Your task to perform on an android device: Go to display settings Image 0: 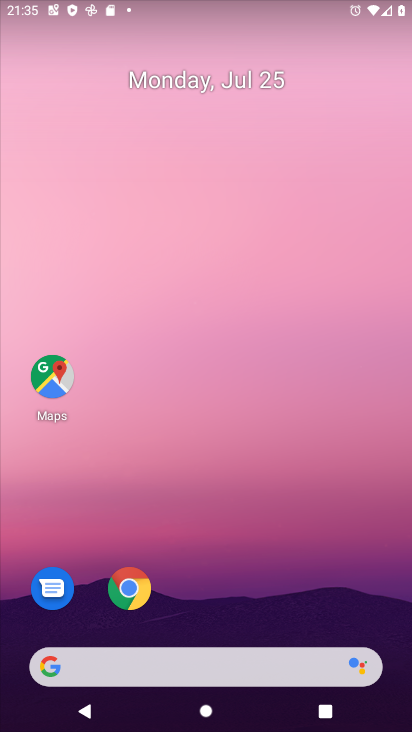
Step 0: drag from (188, 641) to (175, 204)
Your task to perform on an android device: Go to display settings Image 1: 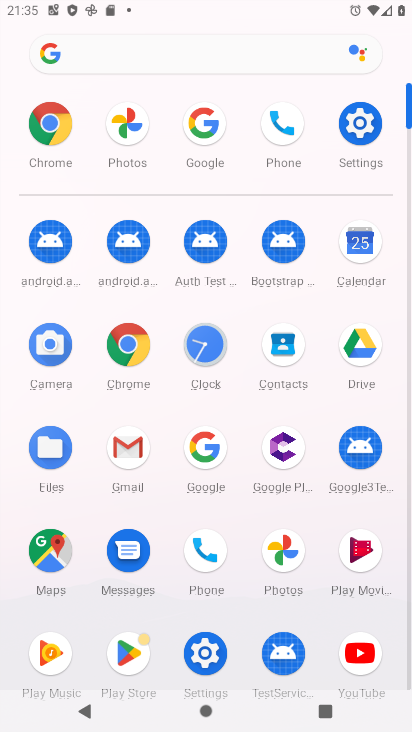
Step 1: click (358, 132)
Your task to perform on an android device: Go to display settings Image 2: 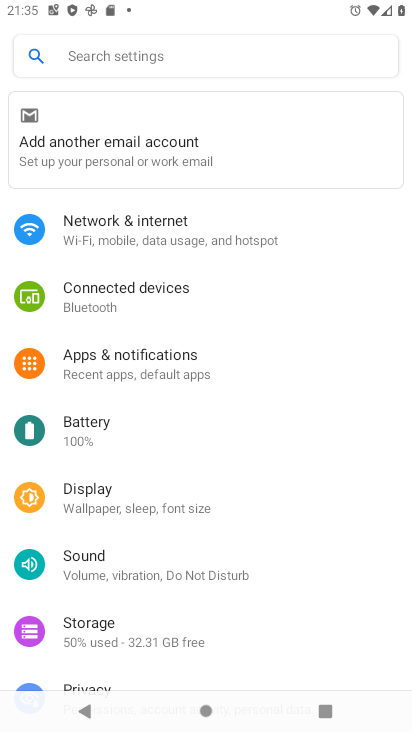
Step 2: click (115, 504)
Your task to perform on an android device: Go to display settings Image 3: 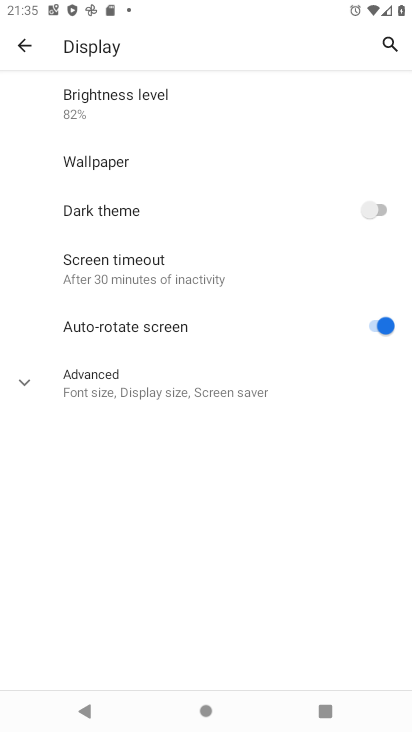
Step 3: click (77, 379)
Your task to perform on an android device: Go to display settings Image 4: 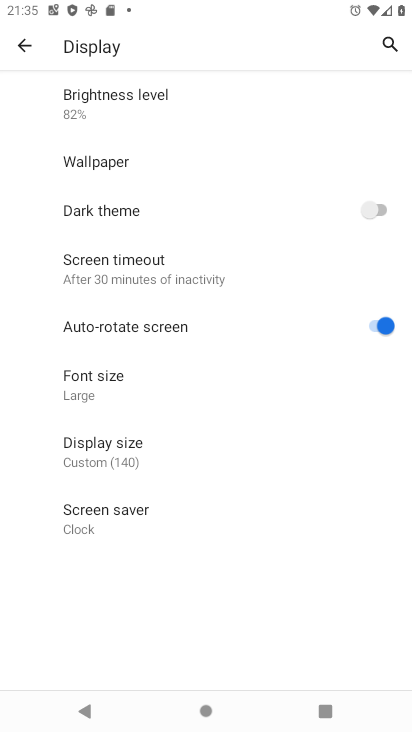
Step 4: task complete